Your task to perform on an android device: uninstall "Google Home" Image 0: 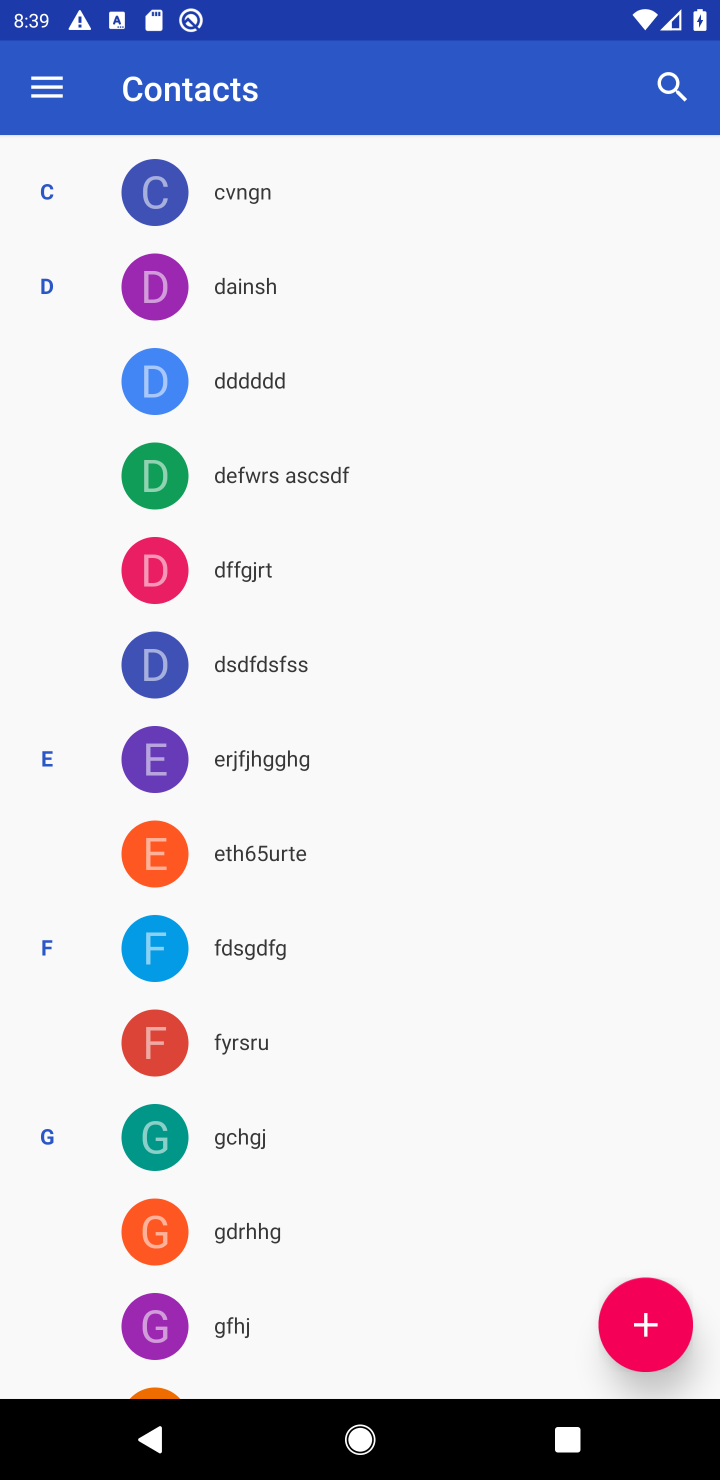
Step 0: press home button
Your task to perform on an android device: uninstall "Google Home" Image 1: 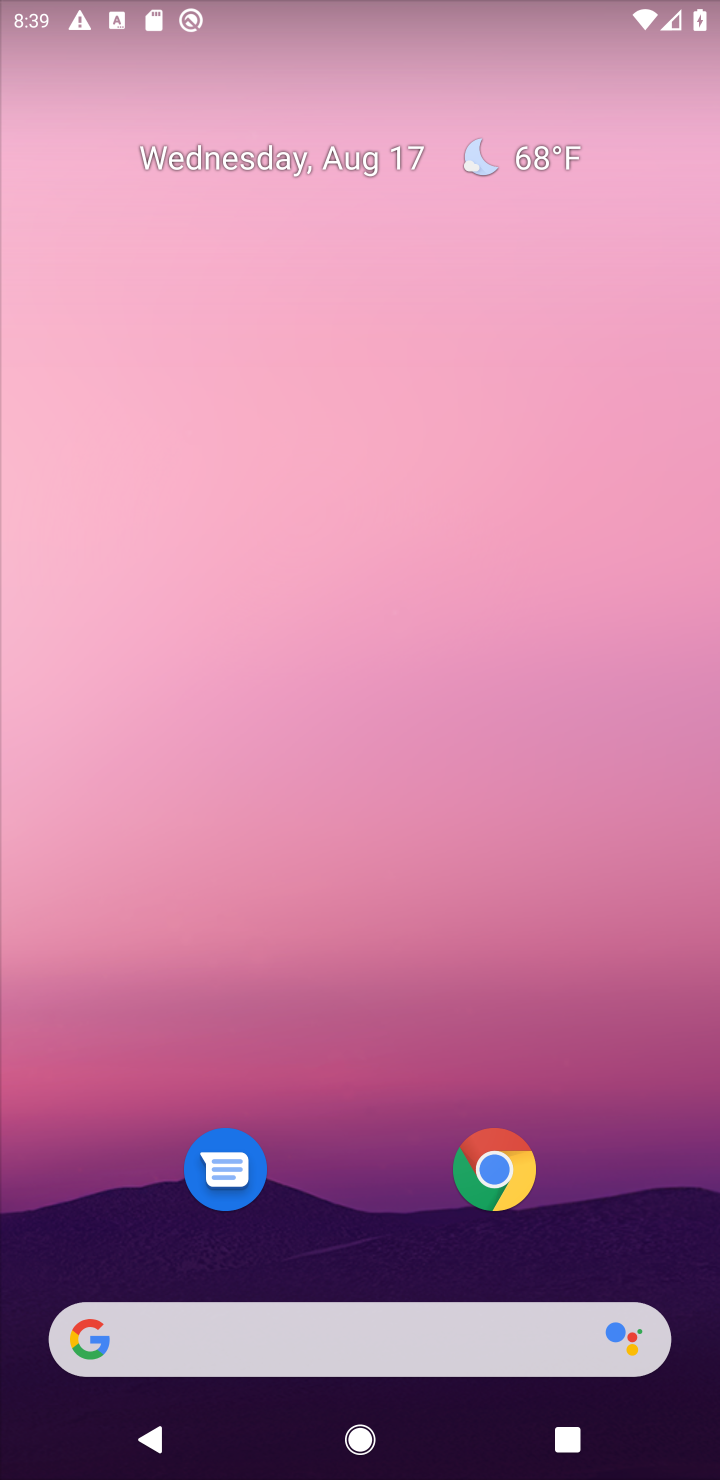
Step 1: drag from (332, 1182) to (280, 15)
Your task to perform on an android device: uninstall "Google Home" Image 2: 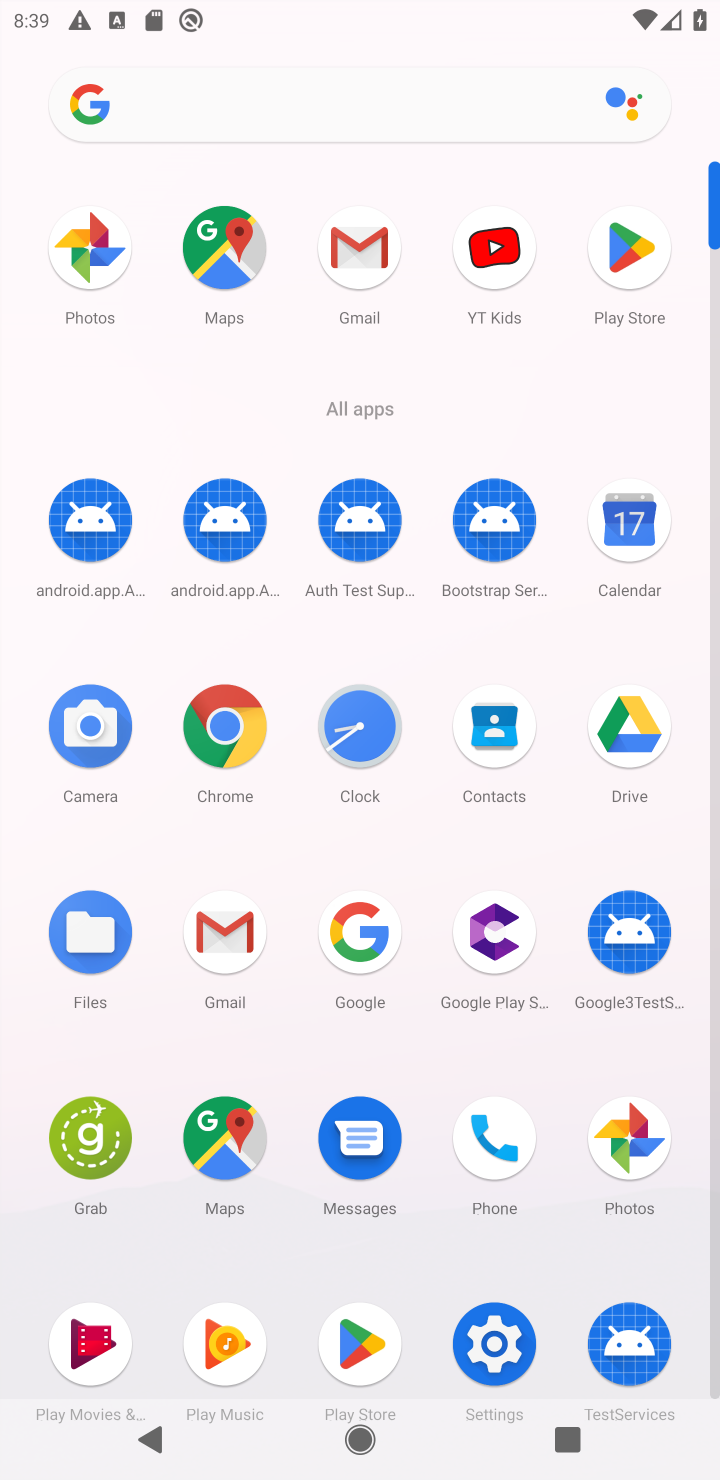
Step 2: click (637, 257)
Your task to perform on an android device: uninstall "Google Home" Image 3: 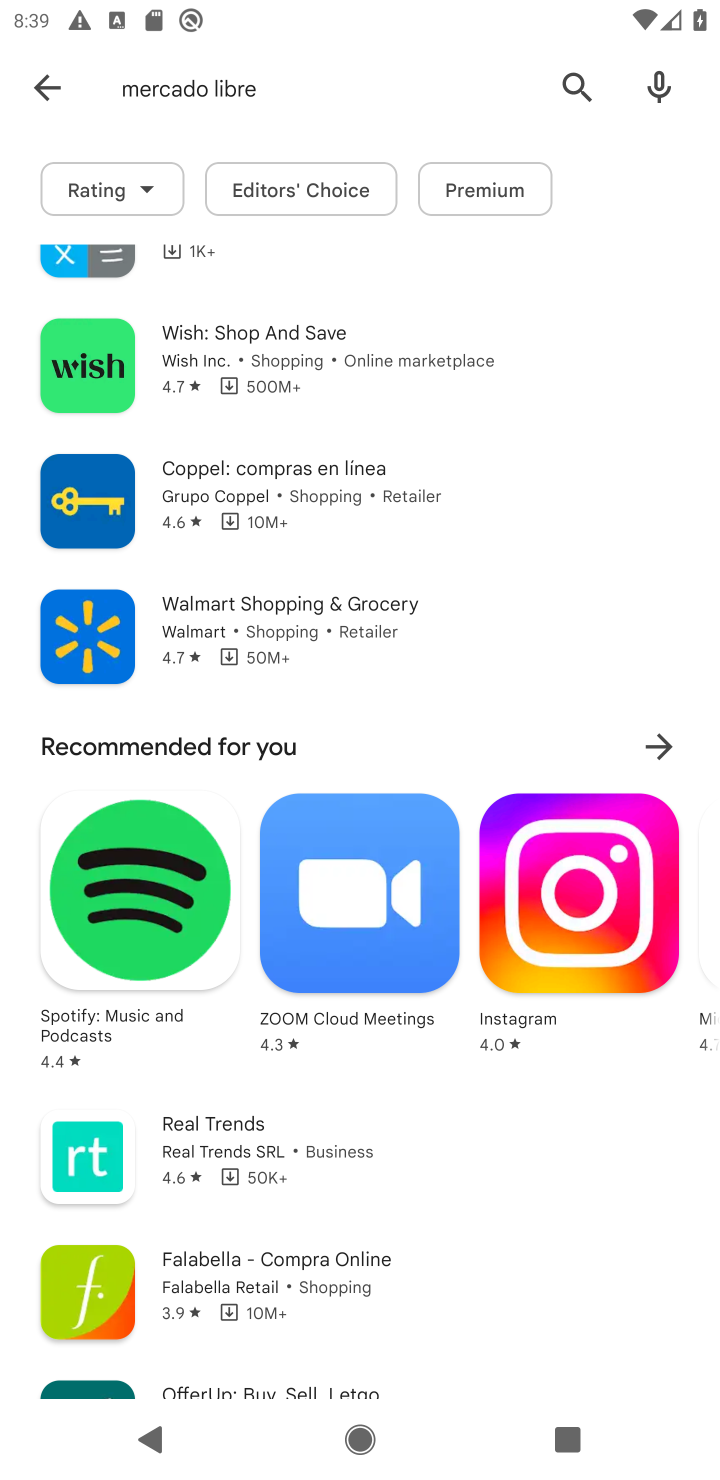
Step 3: click (208, 88)
Your task to perform on an android device: uninstall "Google Home" Image 4: 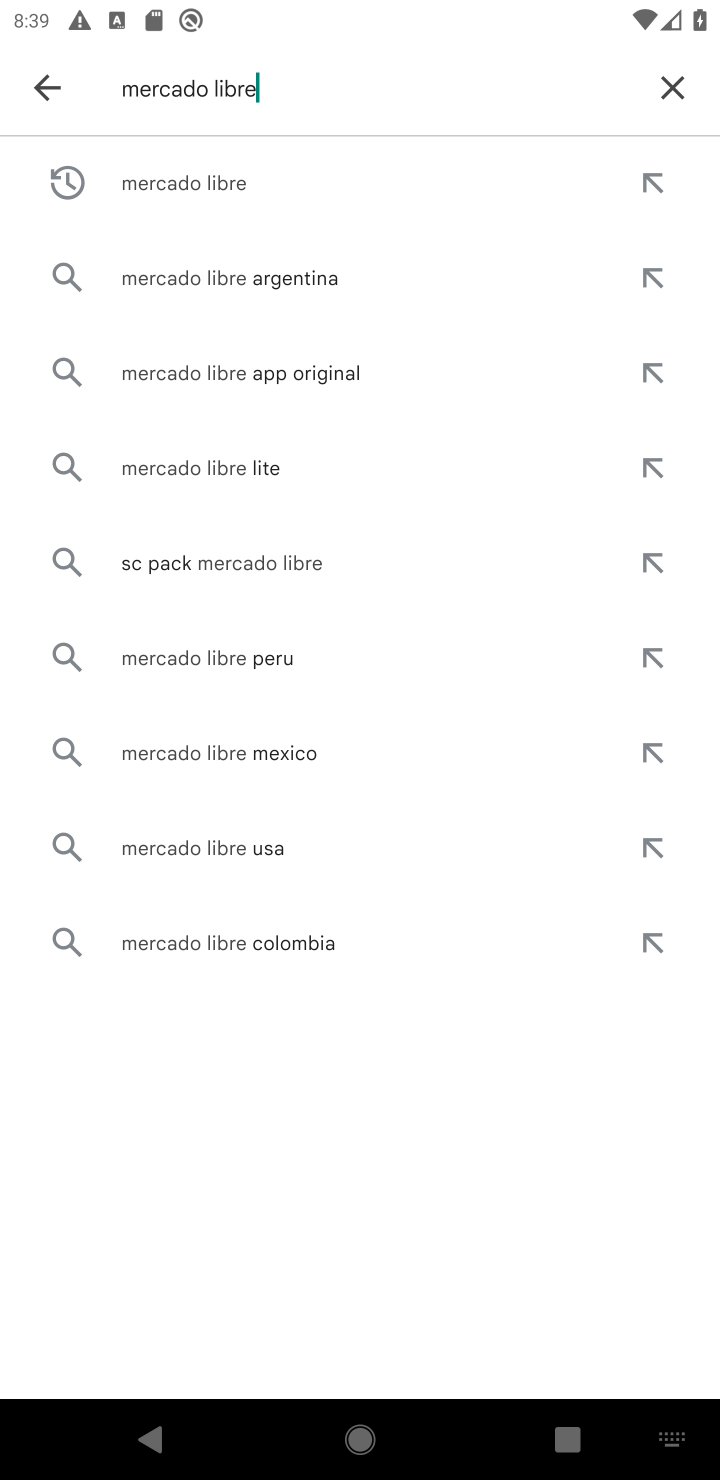
Step 4: click (678, 76)
Your task to perform on an android device: uninstall "Google Home" Image 5: 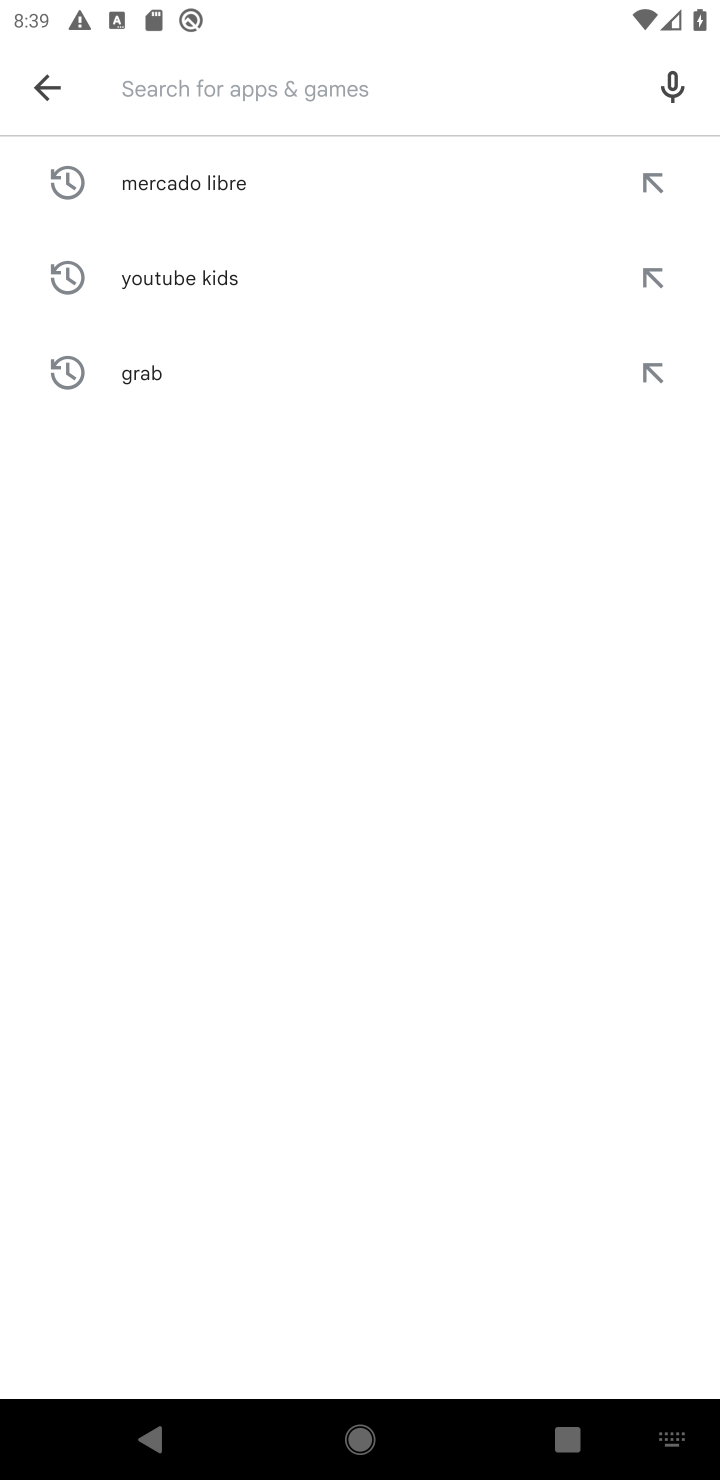
Step 5: type "google home"
Your task to perform on an android device: uninstall "Google Home" Image 6: 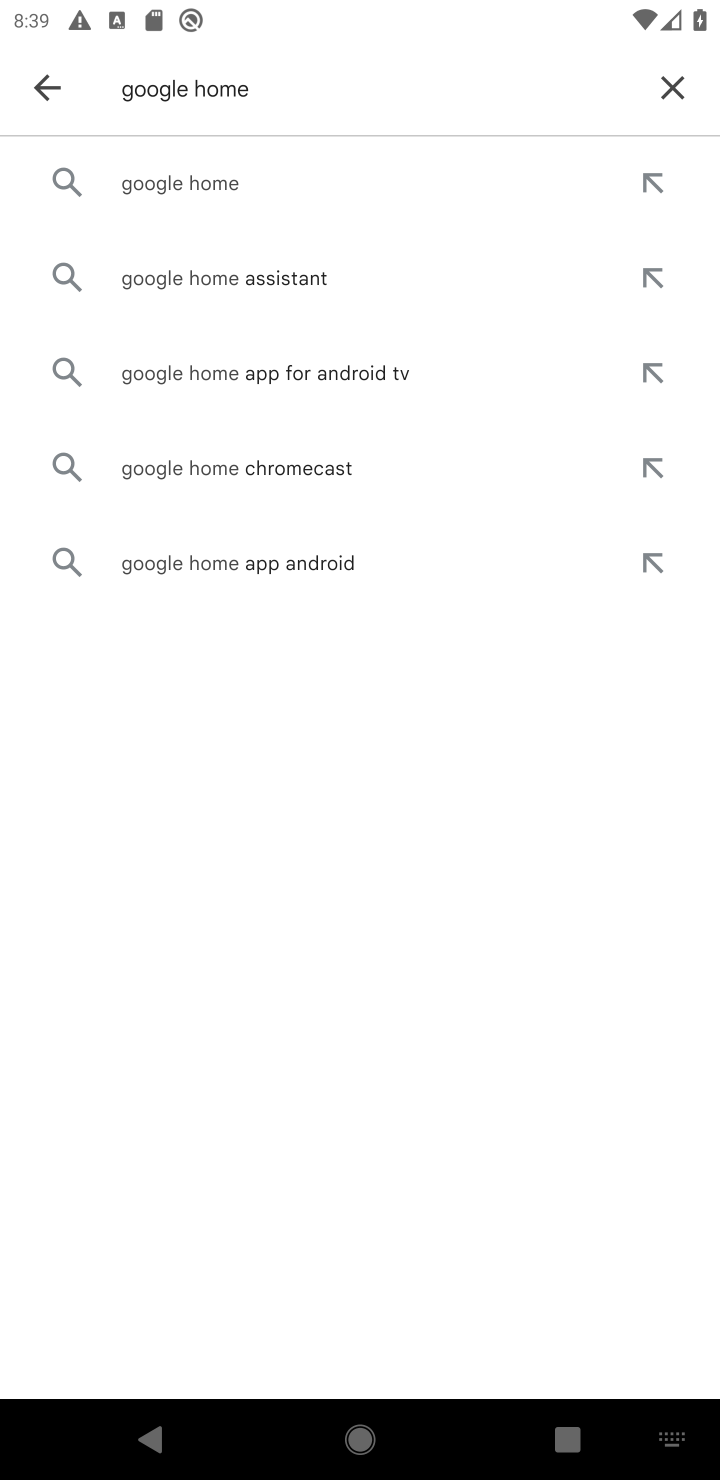
Step 6: click (246, 178)
Your task to perform on an android device: uninstall "Google Home" Image 7: 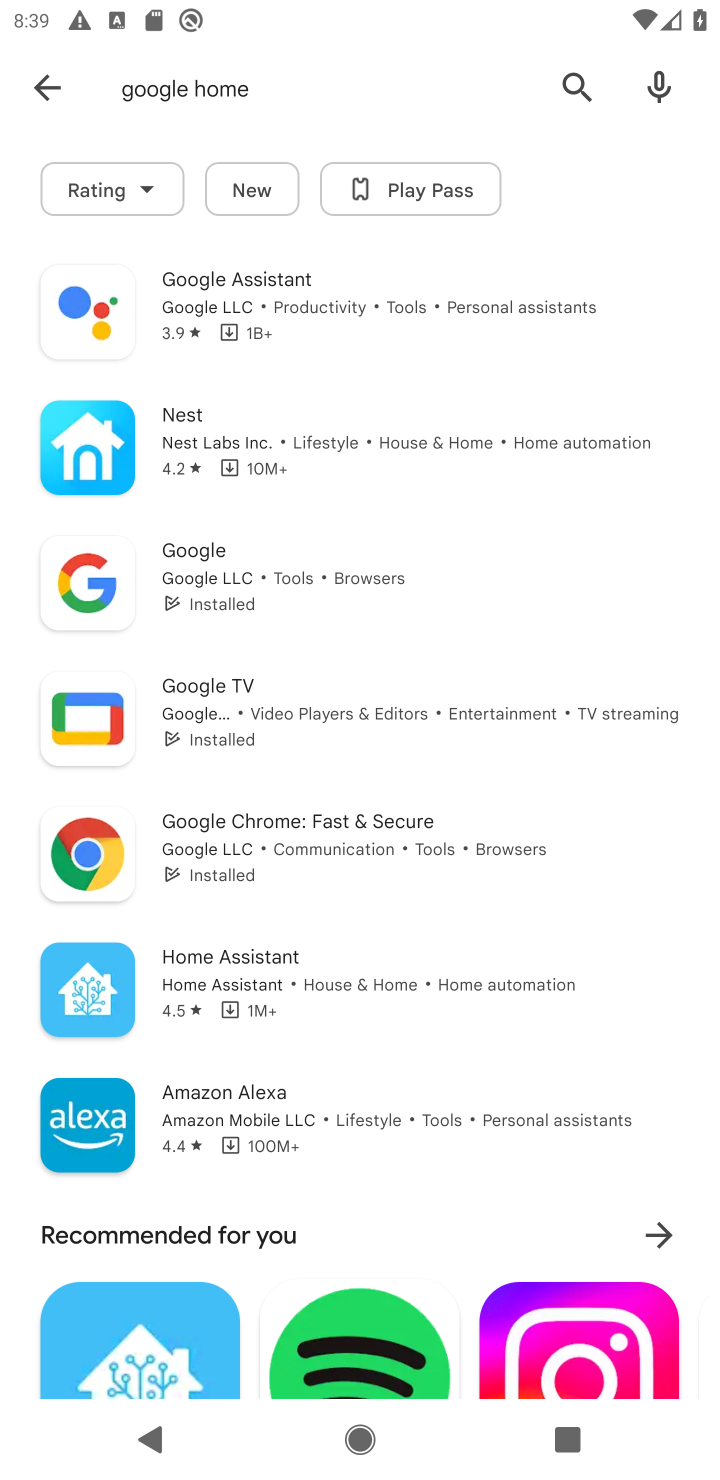
Step 7: task complete